Your task to perform on an android device: Go to location settings Image 0: 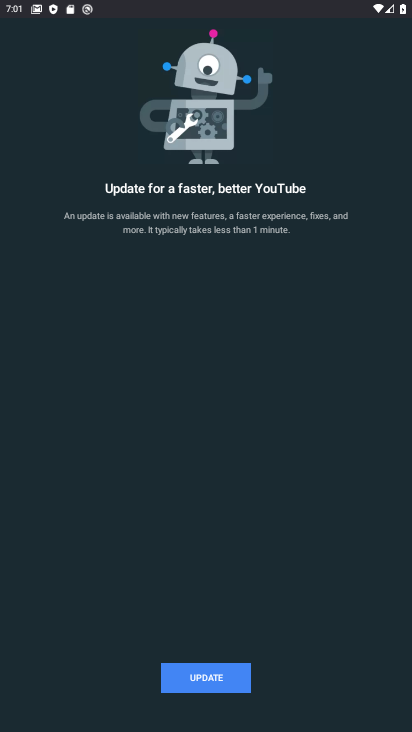
Step 0: press back button
Your task to perform on an android device: Go to location settings Image 1: 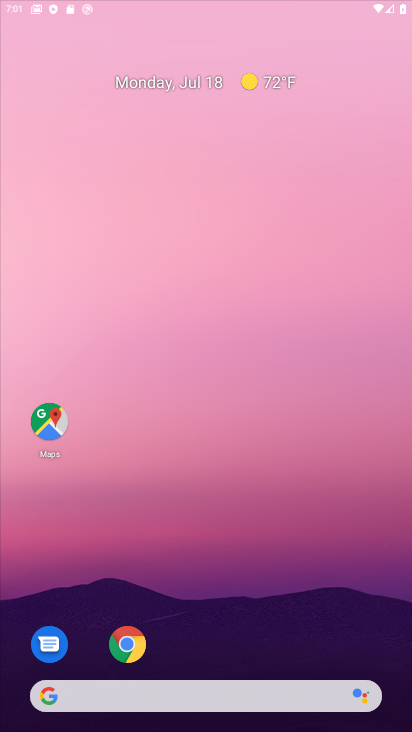
Step 1: drag from (352, 667) to (237, 47)
Your task to perform on an android device: Go to location settings Image 2: 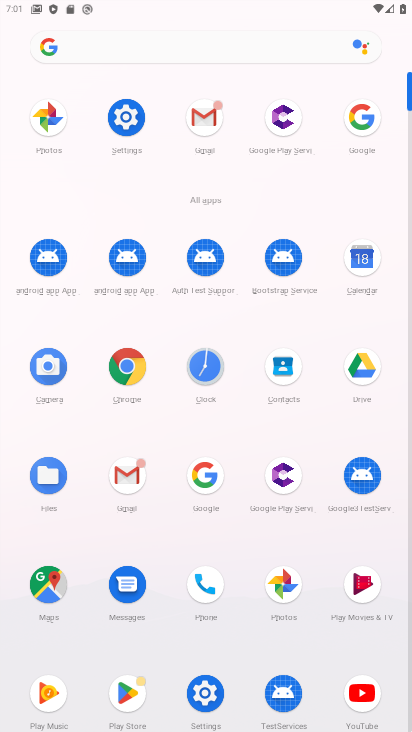
Step 2: click (116, 127)
Your task to perform on an android device: Go to location settings Image 3: 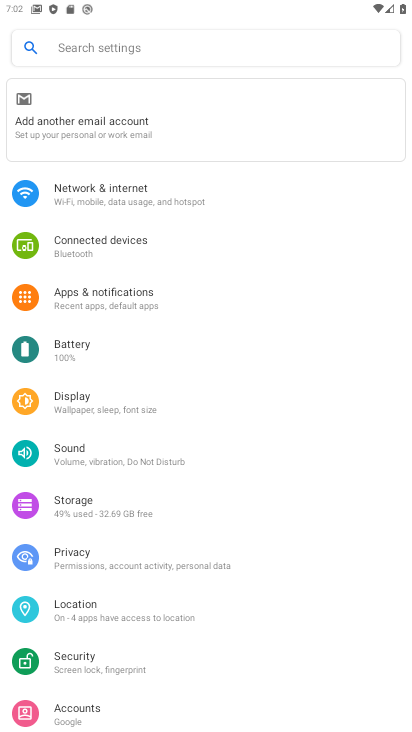
Step 3: click (65, 609)
Your task to perform on an android device: Go to location settings Image 4: 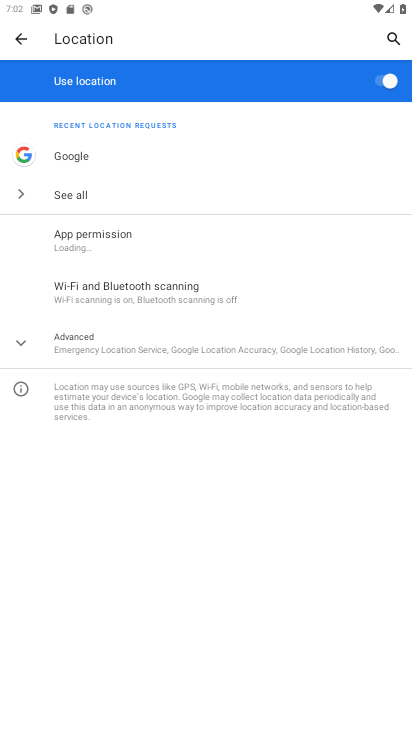
Step 4: task complete